Your task to perform on an android device: Open Yahoo.com Image 0: 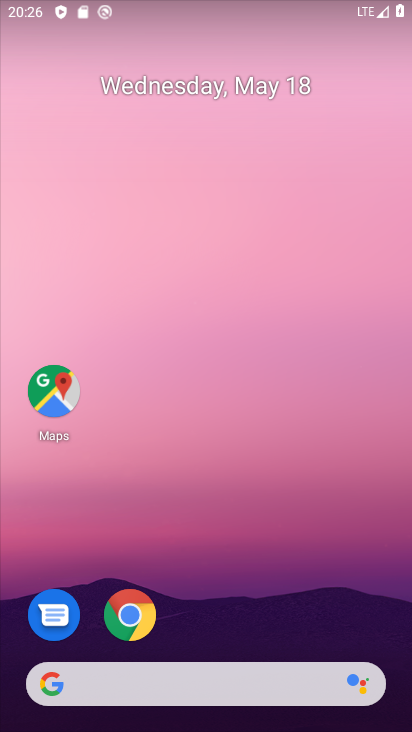
Step 0: click (140, 614)
Your task to perform on an android device: Open Yahoo.com Image 1: 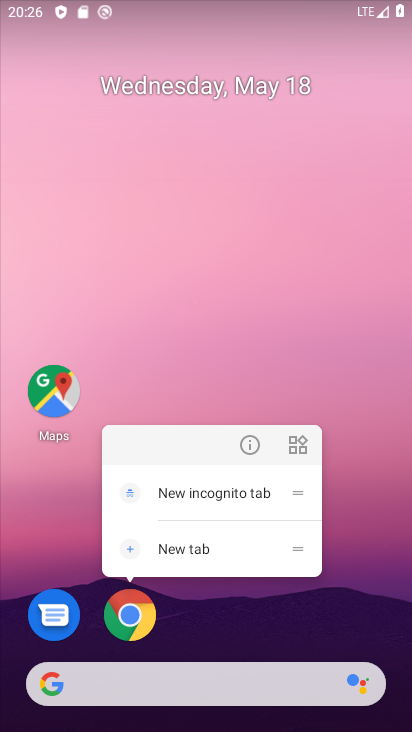
Step 1: click (140, 614)
Your task to perform on an android device: Open Yahoo.com Image 2: 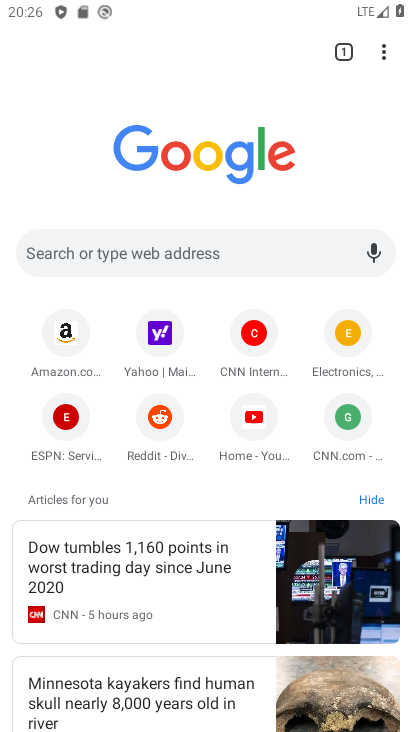
Step 2: click (150, 356)
Your task to perform on an android device: Open Yahoo.com Image 3: 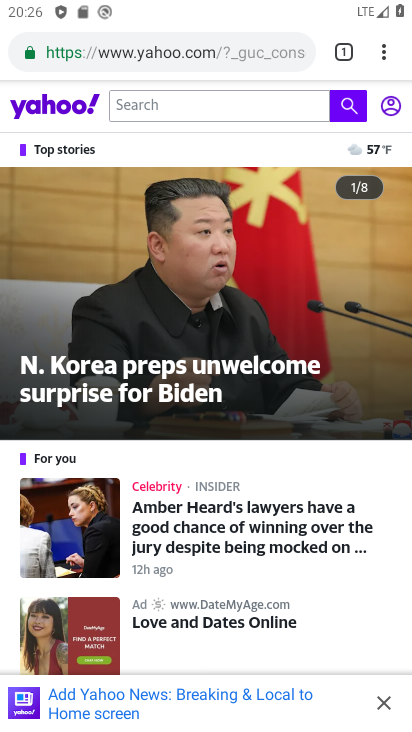
Step 3: task complete